Your task to perform on an android device: turn on airplane mode Image 0: 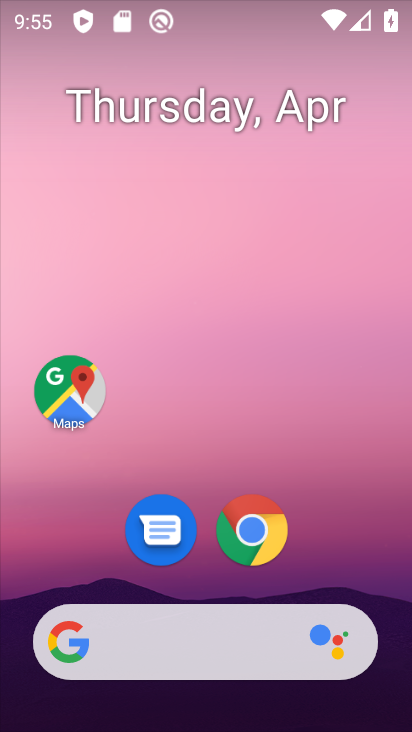
Step 0: drag from (198, 712) to (188, 129)
Your task to perform on an android device: turn on airplane mode Image 1: 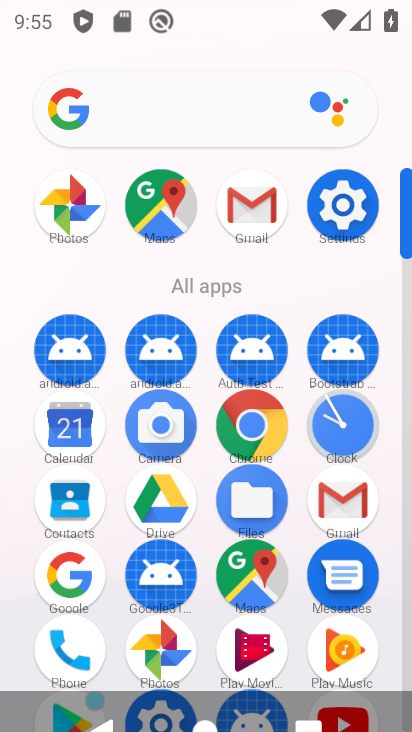
Step 1: click (347, 201)
Your task to perform on an android device: turn on airplane mode Image 2: 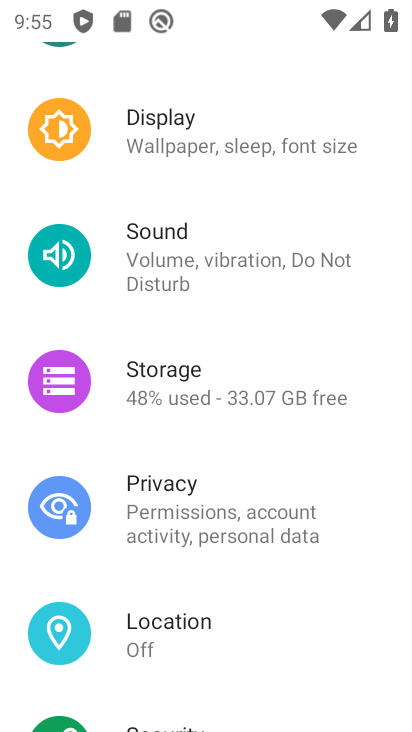
Step 2: drag from (178, 140) to (191, 572)
Your task to perform on an android device: turn on airplane mode Image 3: 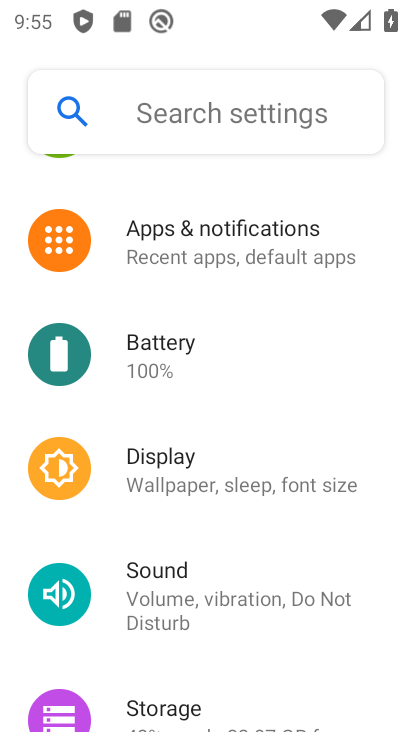
Step 3: drag from (196, 231) to (198, 539)
Your task to perform on an android device: turn on airplane mode Image 4: 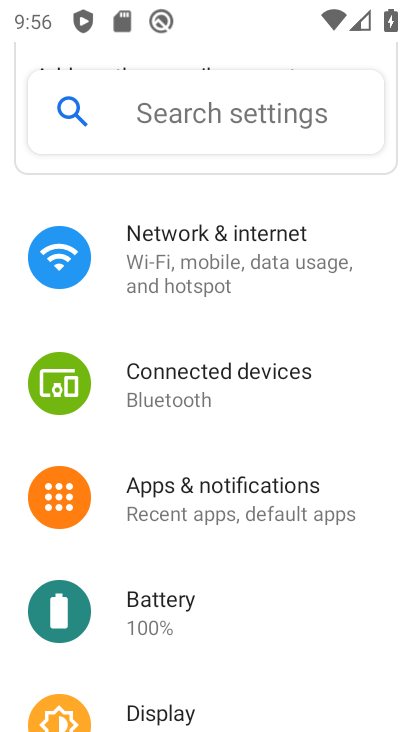
Step 4: click (188, 268)
Your task to perform on an android device: turn on airplane mode Image 5: 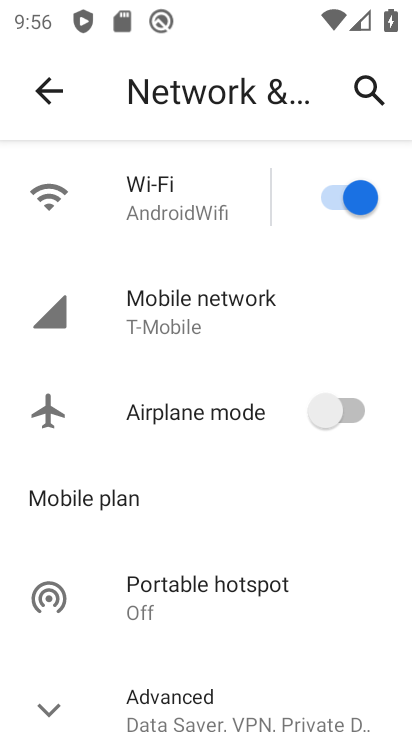
Step 5: click (348, 414)
Your task to perform on an android device: turn on airplane mode Image 6: 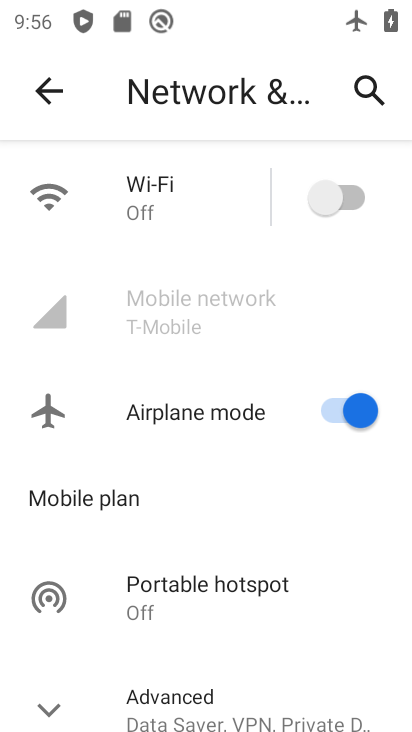
Step 6: task complete